Your task to perform on an android device: change the clock style Image 0: 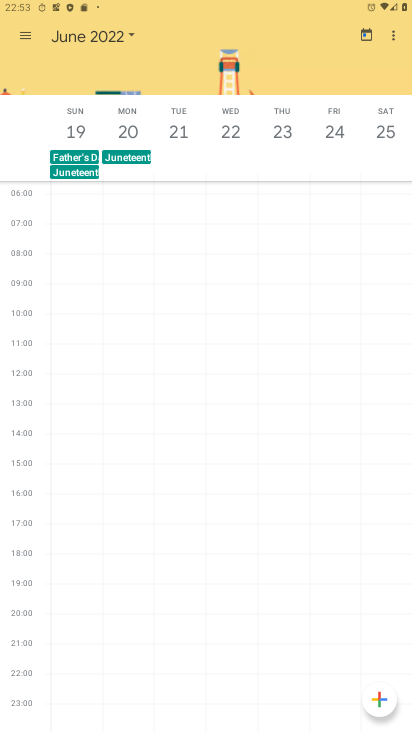
Step 0: press home button
Your task to perform on an android device: change the clock style Image 1: 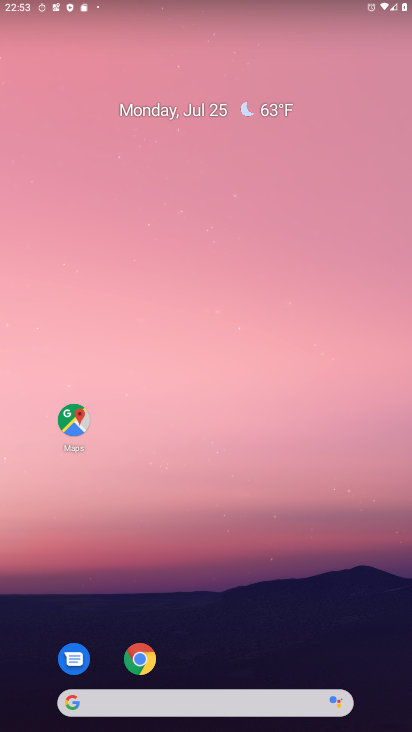
Step 1: drag from (233, 725) to (233, 46)
Your task to perform on an android device: change the clock style Image 2: 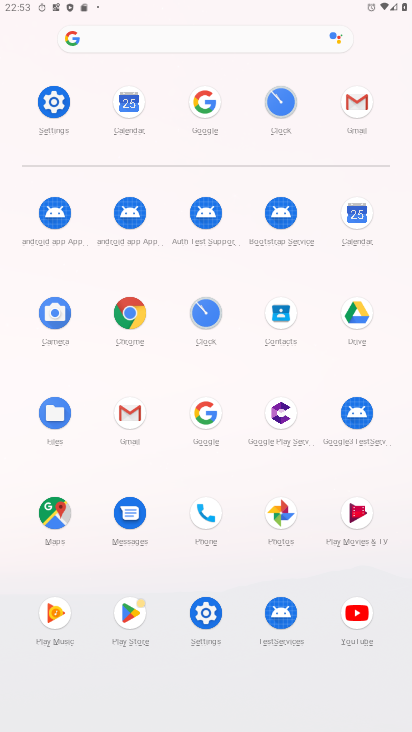
Step 2: click (208, 311)
Your task to perform on an android device: change the clock style Image 3: 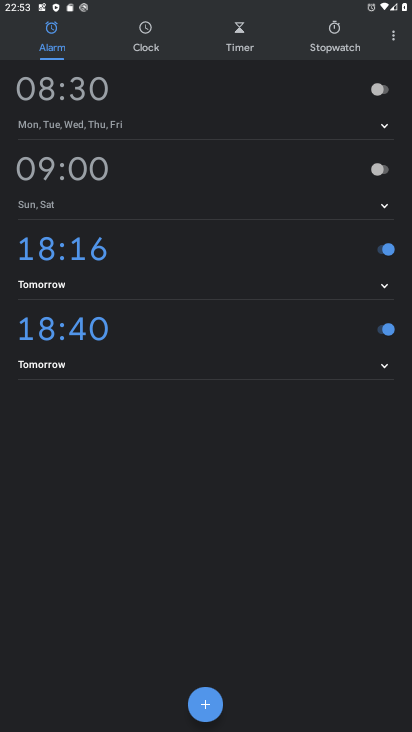
Step 3: click (395, 39)
Your task to perform on an android device: change the clock style Image 4: 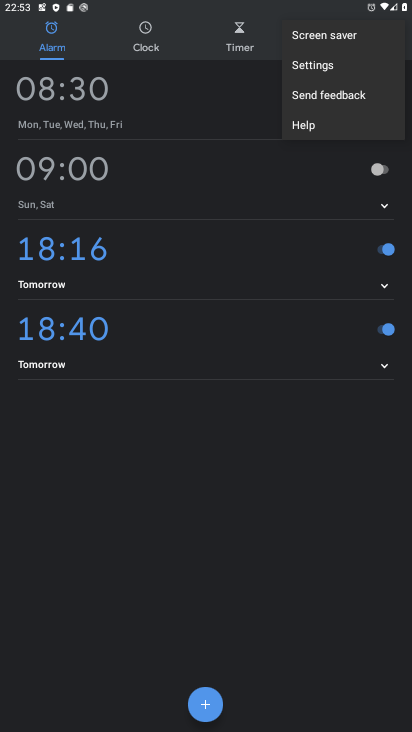
Step 4: click (304, 69)
Your task to perform on an android device: change the clock style Image 5: 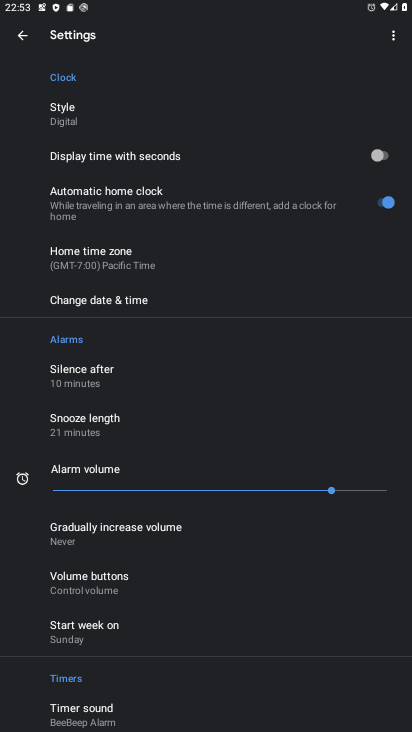
Step 5: click (67, 112)
Your task to perform on an android device: change the clock style Image 6: 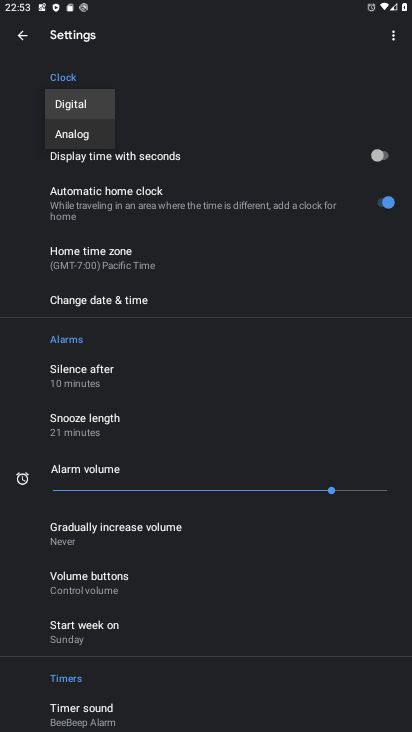
Step 6: click (71, 141)
Your task to perform on an android device: change the clock style Image 7: 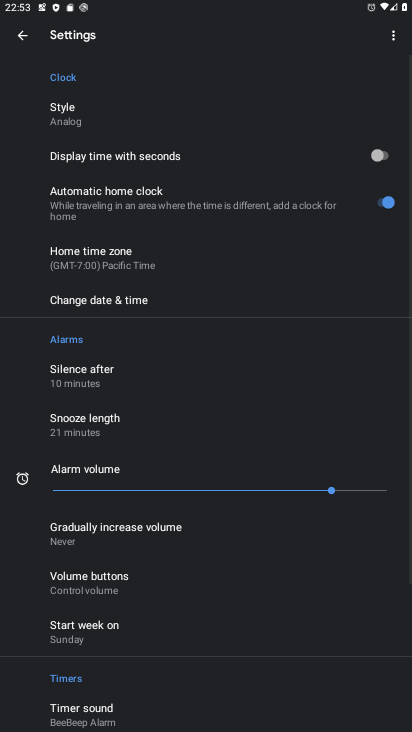
Step 7: task complete